Your task to perform on an android device: Search for flights from Zurich to Buenos aires Image 0: 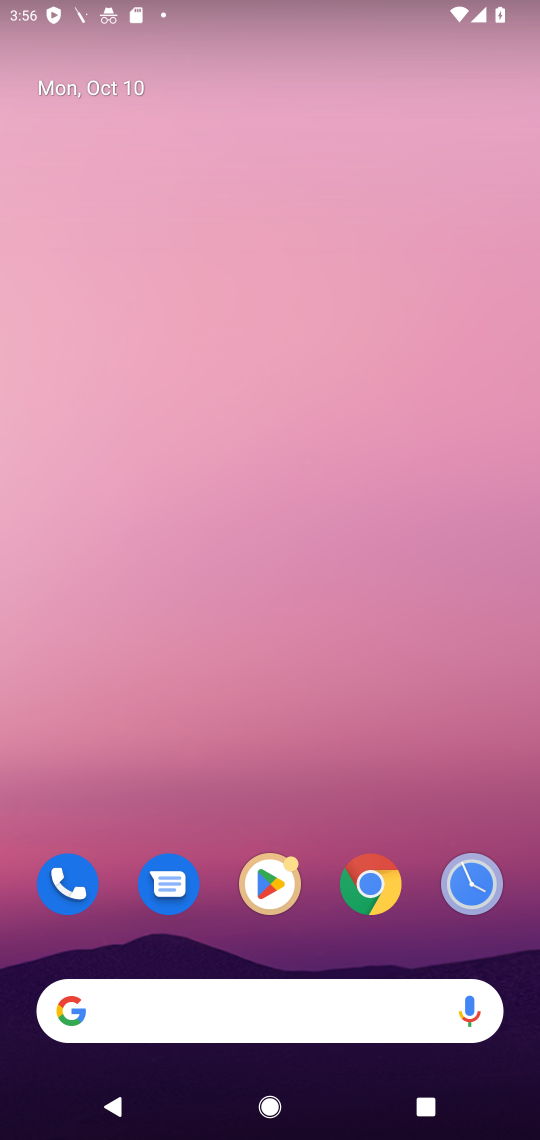
Step 0: click (275, 987)
Your task to perform on an android device: Search for flights from Zurich to Buenos aires Image 1: 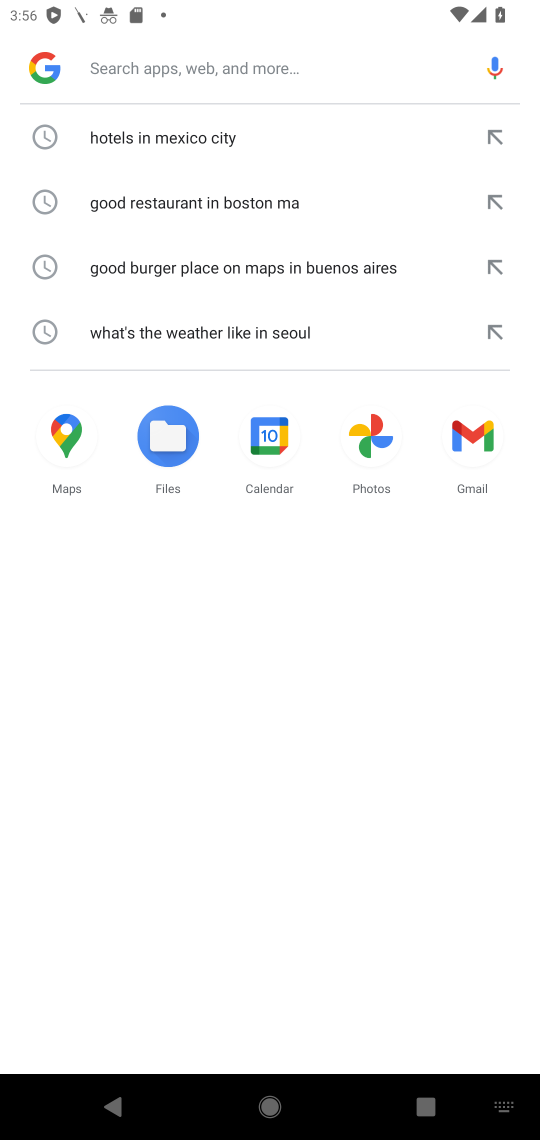
Step 1: type "Search for flights from Zurich to Buenos aires"
Your task to perform on an android device: Search for flights from Zurich to Buenos aires Image 2: 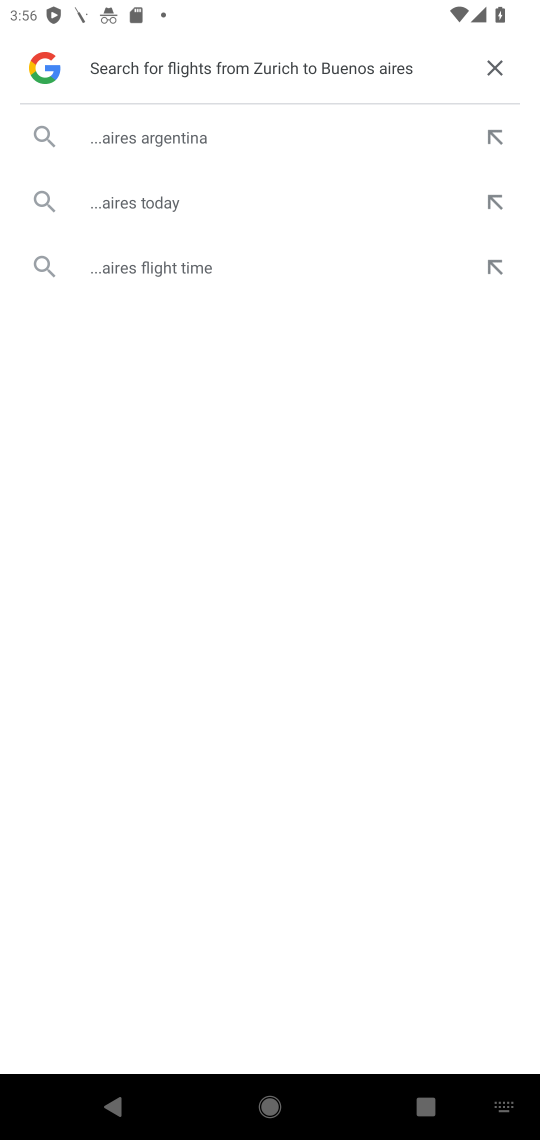
Step 2: click (140, 202)
Your task to perform on an android device: Search for flights from Zurich to Buenos aires Image 3: 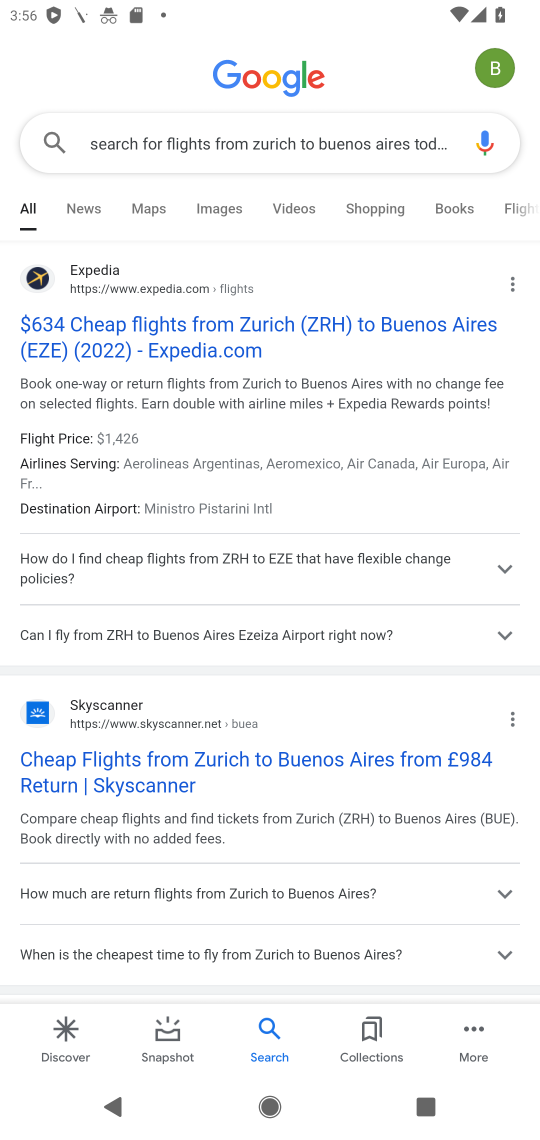
Step 3: click (120, 326)
Your task to perform on an android device: Search for flights from Zurich to Buenos aires Image 4: 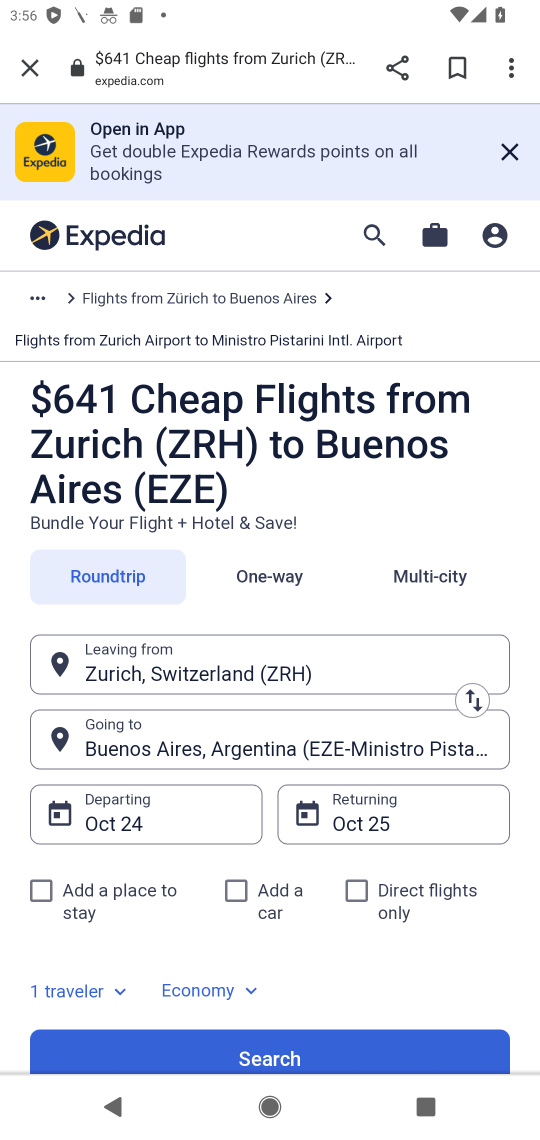
Step 4: click (263, 1054)
Your task to perform on an android device: Search for flights from Zurich to Buenos aires Image 5: 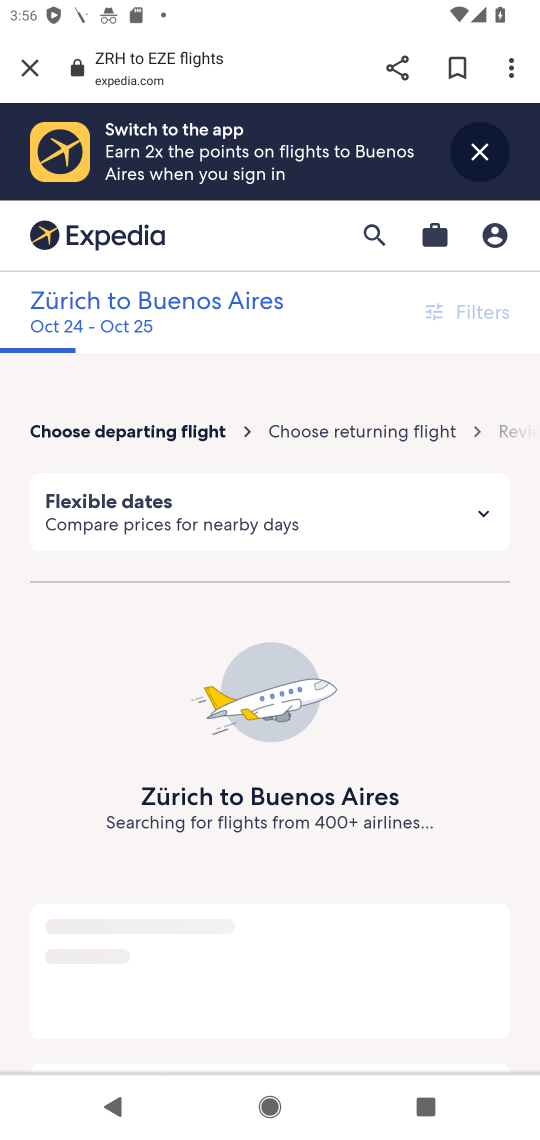
Step 5: task complete